Your task to perform on an android device: turn off location Image 0: 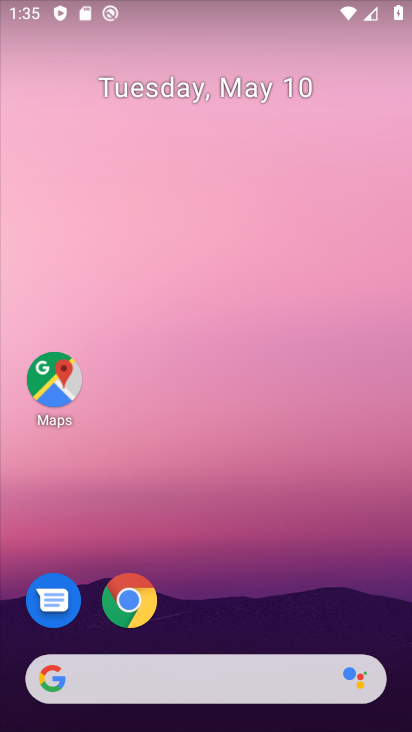
Step 0: drag from (175, 596) to (222, 46)
Your task to perform on an android device: turn off location Image 1: 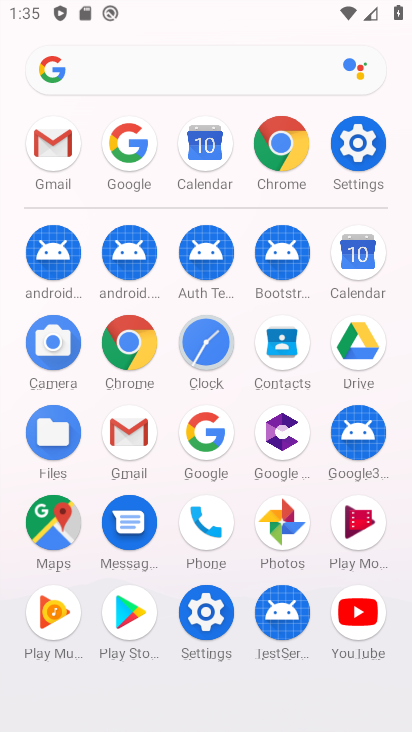
Step 1: click (364, 162)
Your task to perform on an android device: turn off location Image 2: 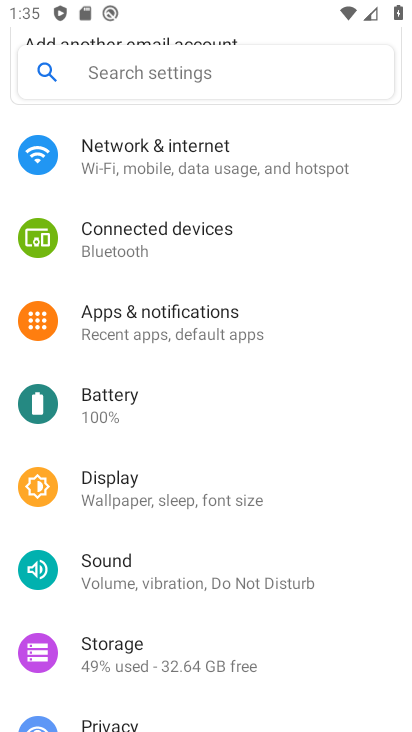
Step 2: drag from (125, 573) to (215, 251)
Your task to perform on an android device: turn off location Image 3: 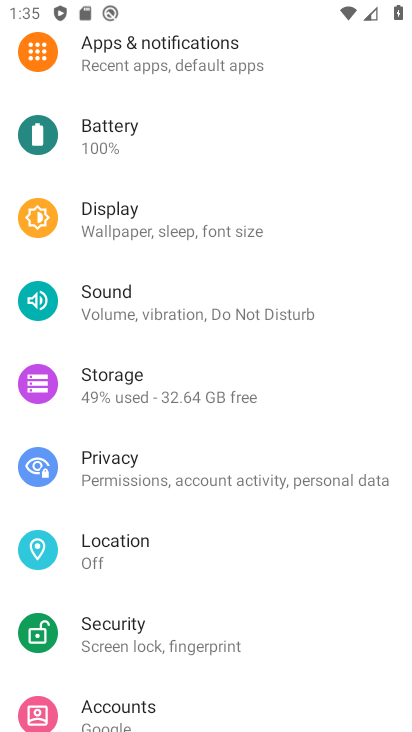
Step 3: click (139, 546)
Your task to perform on an android device: turn off location Image 4: 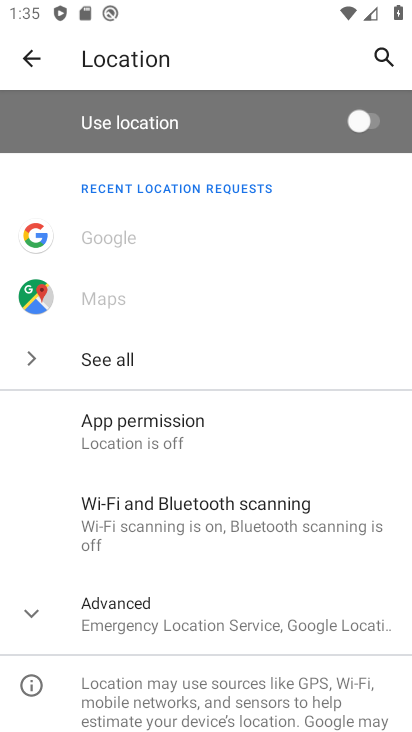
Step 4: task complete